Your task to perform on an android device: toggle show notifications on the lock screen Image 0: 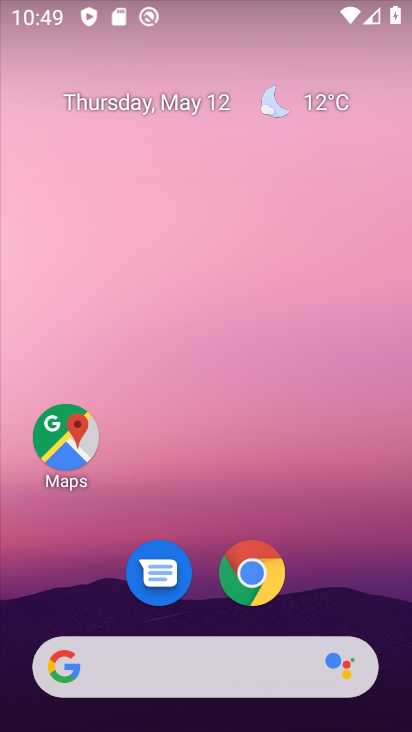
Step 0: drag from (176, 729) to (166, 27)
Your task to perform on an android device: toggle show notifications on the lock screen Image 1: 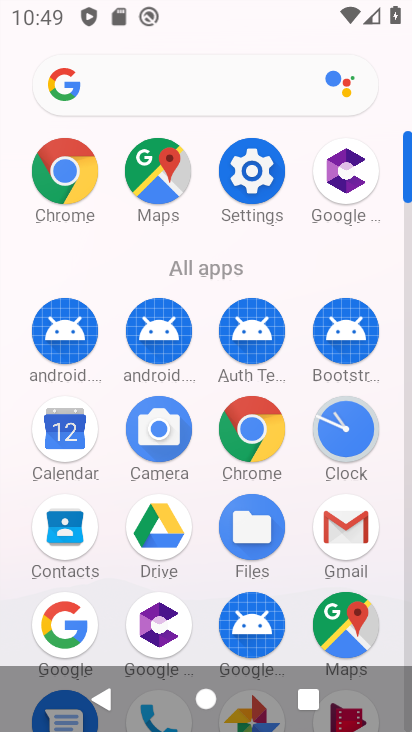
Step 1: click (253, 170)
Your task to perform on an android device: toggle show notifications on the lock screen Image 2: 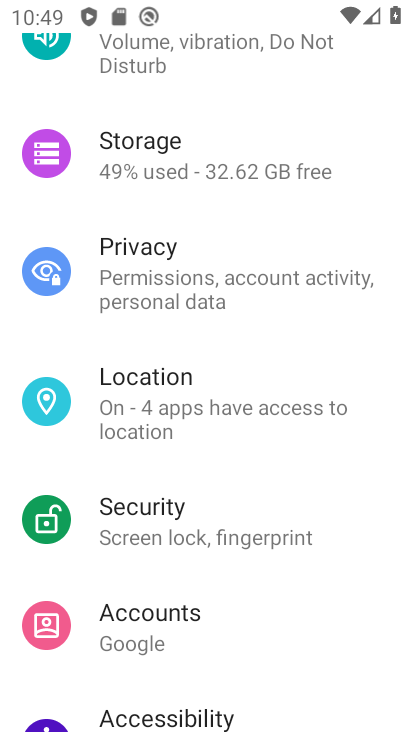
Step 2: drag from (235, 228) to (151, 691)
Your task to perform on an android device: toggle show notifications on the lock screen Image 3: 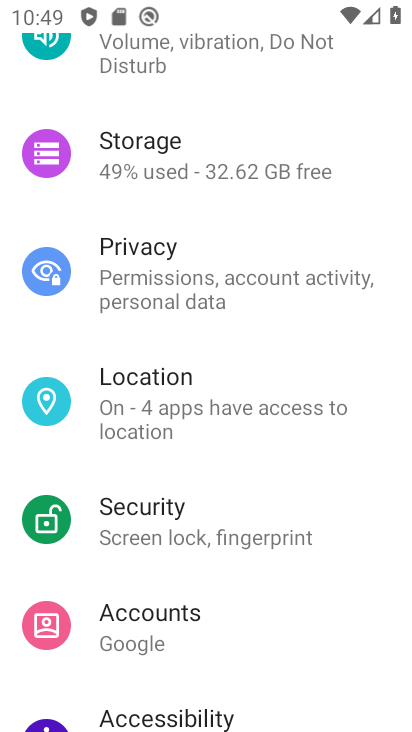
Step 3: drag from (255, 131) to (189, 674)
Your task to perform on an android device: toggle show notifications on the lock screen Image 4: 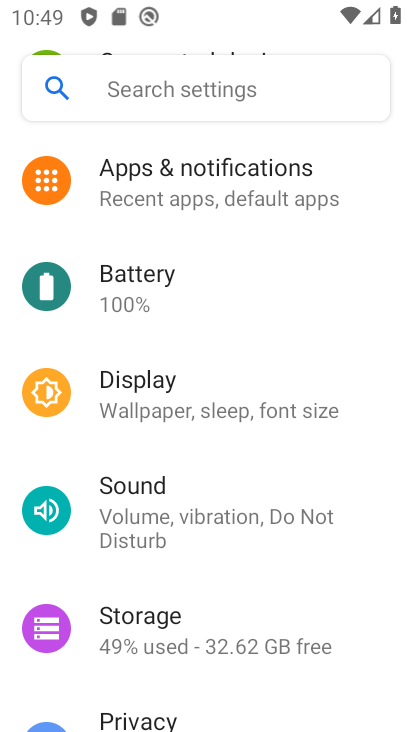
Step 4: drag from (331, 229) to (211, 727)
Your task to perform on an android device: toggle show notifications on the lock screen Image 5: 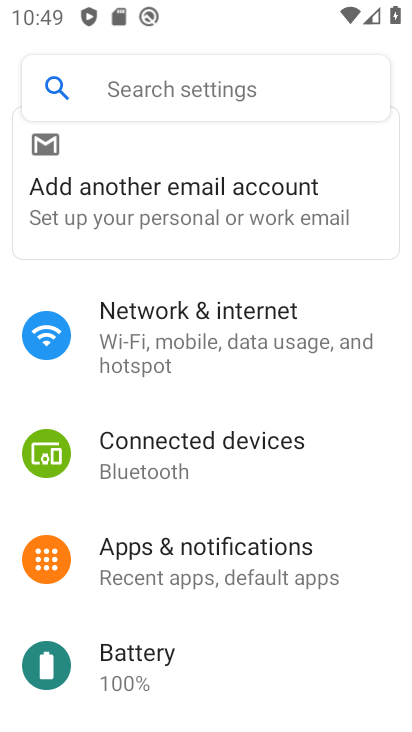
Step 5: click (205, 568)
Your task to perform on an android device: toggle show notifications on the lock screen Image 6: 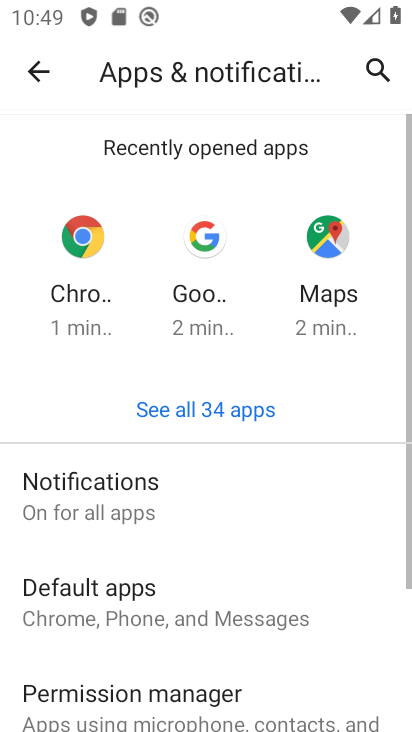
Step 6: drag from (239, 653) to (242, 293)
Your task to perform on an android device: toggle show notifications on the lock screen Image 7: 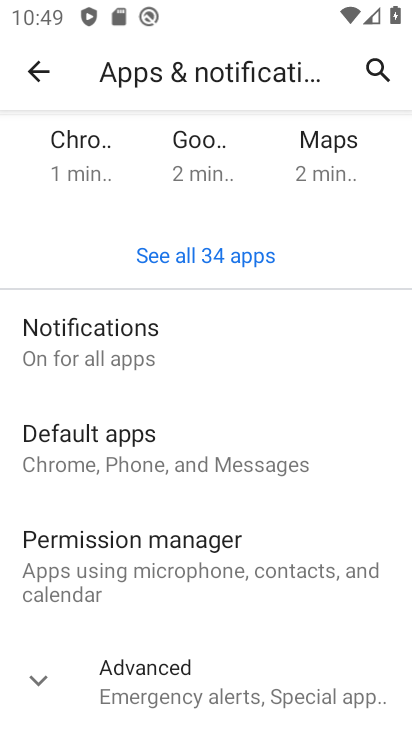
Step 7: click (148, 353)
Your task to perform on an android device: toggle show notifications on the lock screen Image 8: 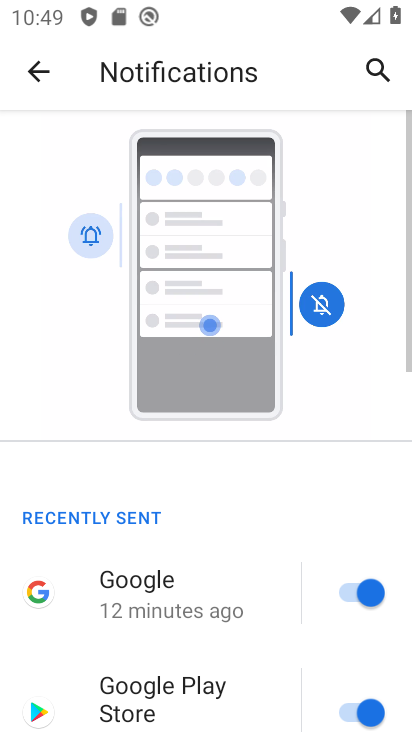
Step 8: drag from (182, 614) to (193, 192)
Your task to perform on an android device: toggle show notifications on the lock screen Image 9: 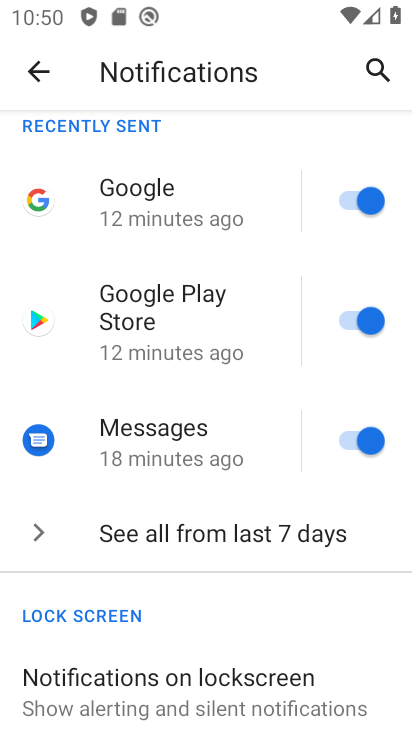
Step 9: click (153, 686)
Your task to perform on an android device: toggle show notifications on the lock screen Image 10: 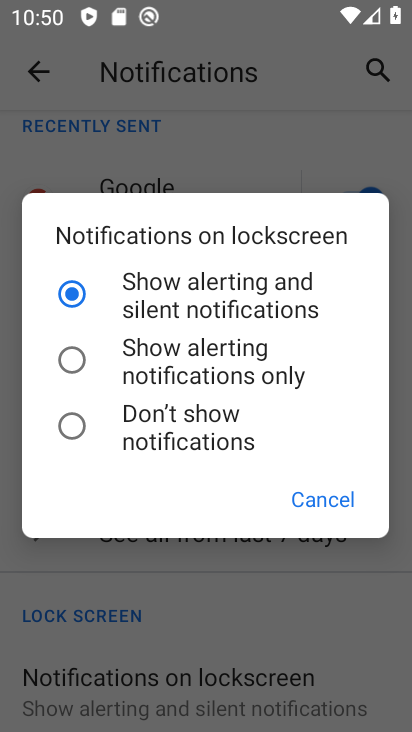
Step 10: click (167, 454)
Your task to perform on an android device: toggle show notifications on the lock screen Image 11: 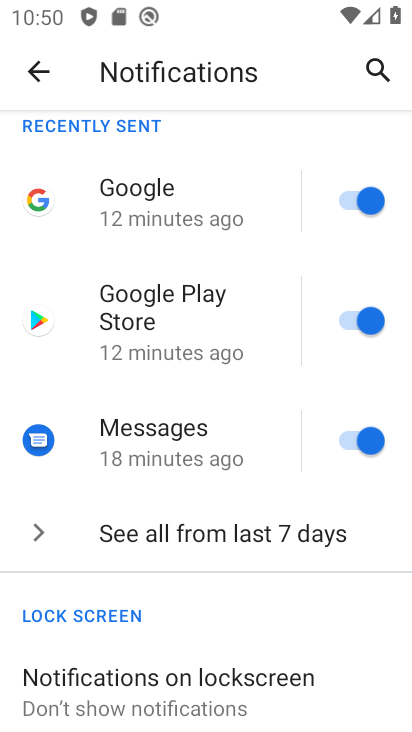
Step 11: task complete